Your task to perform on an android device: change notification settings in the gmail app Image 0: 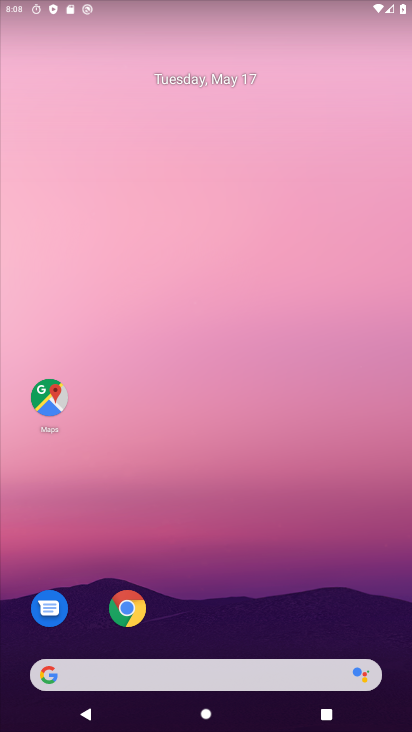
Step 0: drag from (351, 609) to (305, 161)
Your task to perform on an android device: change notification settings in the gmail app Image 1: 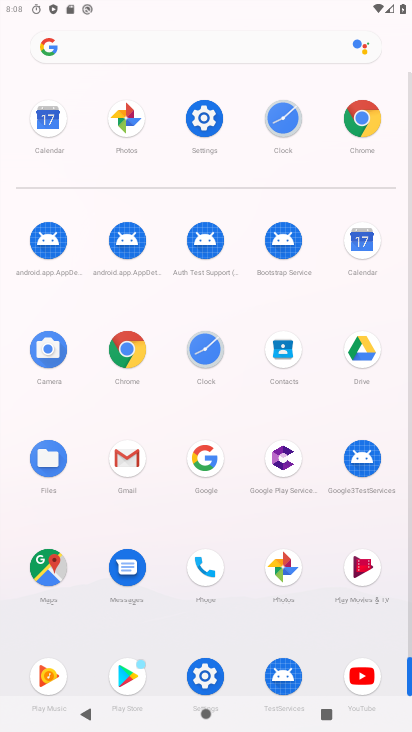
Step 1: click (122, 465)
Your task to perform on an android device: change notification settings in the gmail app Image 2: 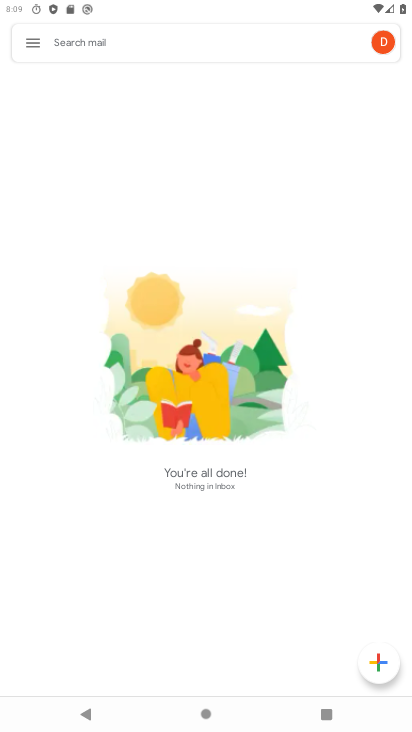
Step 2: click (33, 42)
Your task to perform on an android device: change notification settings in the gmail app Image 3: 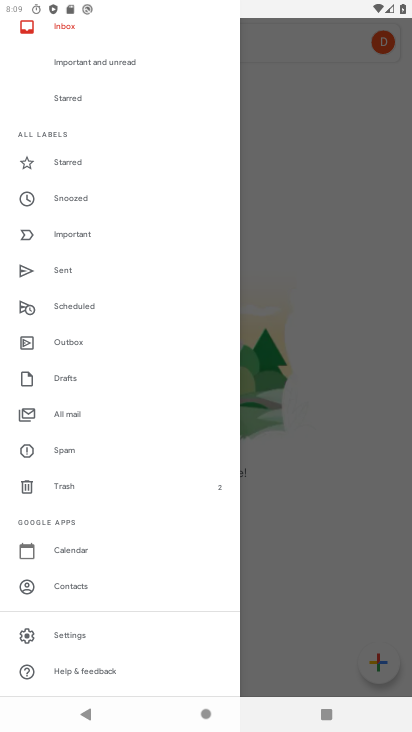
Step 3: click (79, 633)
Your task to perform on an android device: change notification settings in the gmail app Image 4: 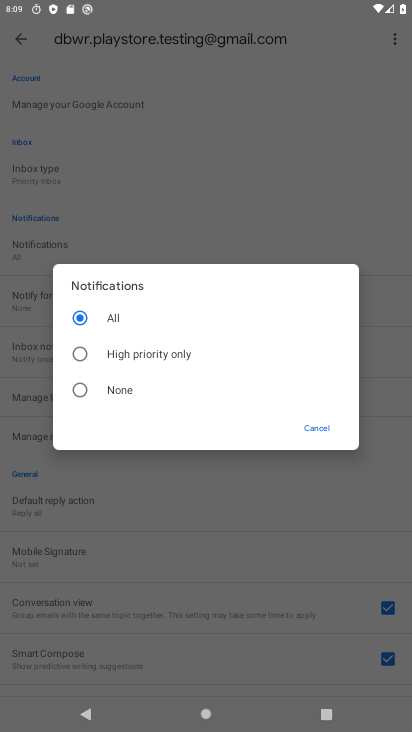
Step 4: click (81, 356)
Your task to perform on an android device: change notification settings in the gmail app Image 5: 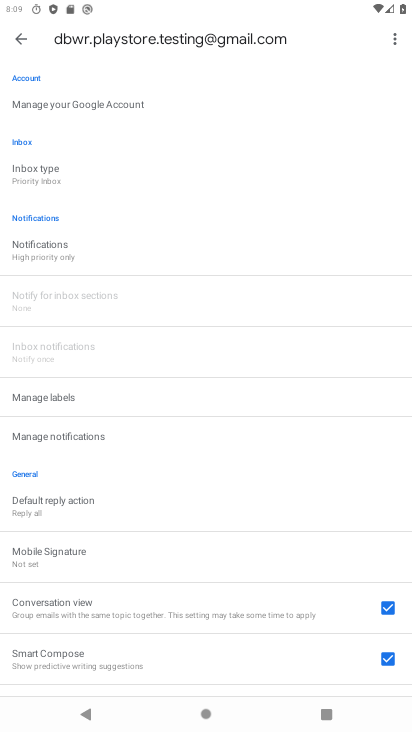
Step 5: task complete